Your task to perform on an android device: see sites visited before in the chrome app Image 0: 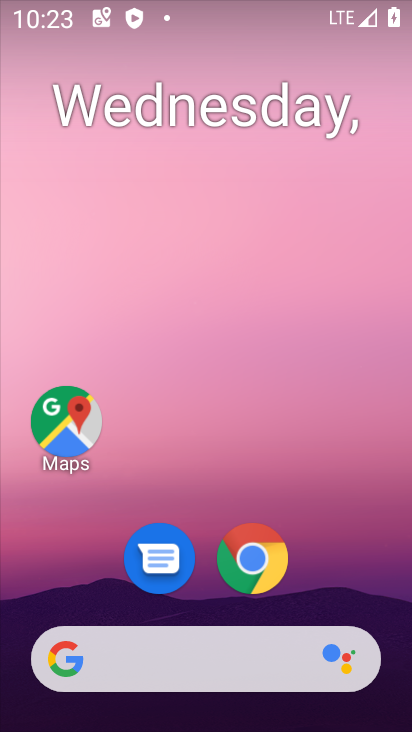
Step 0: click (261, 558)
Your task to perform on an android device: see sites visited before in the chrome app Image 1: 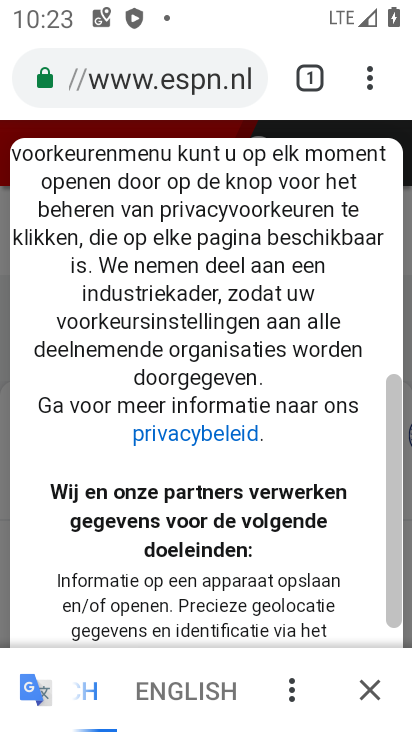
Step 1: click (372, 78)
Your task to perform on an android device: see sites visited before in the chrome app Image 2: 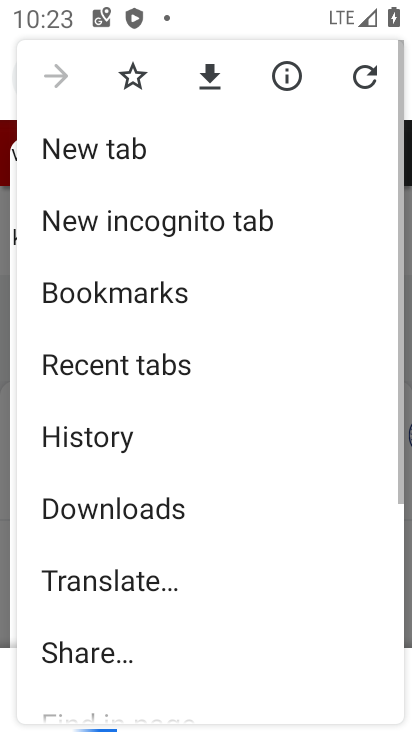
Step 2: click (81, 439)
Your task to perform on an android device: see sites visited before in the chrome app Image 3: 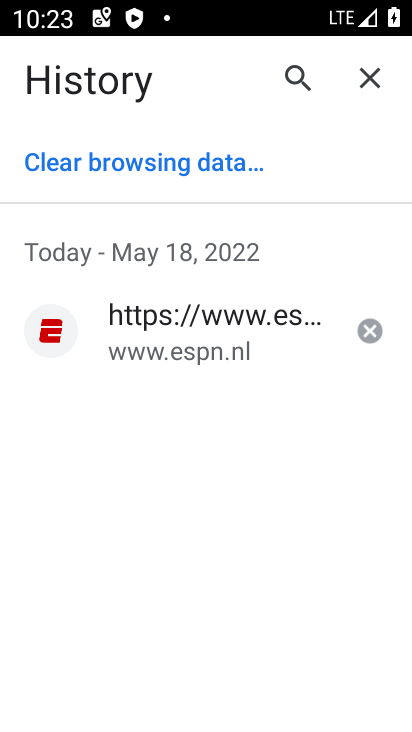
Step 3: task complete